Your task to perform on an android device: Open maps Image 0: 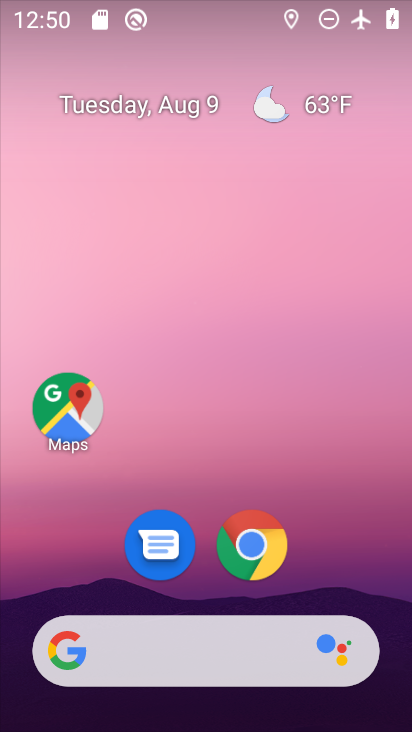
Step 0: click (68, 411)
Your task to perform on an android device: Open maps Image 1: 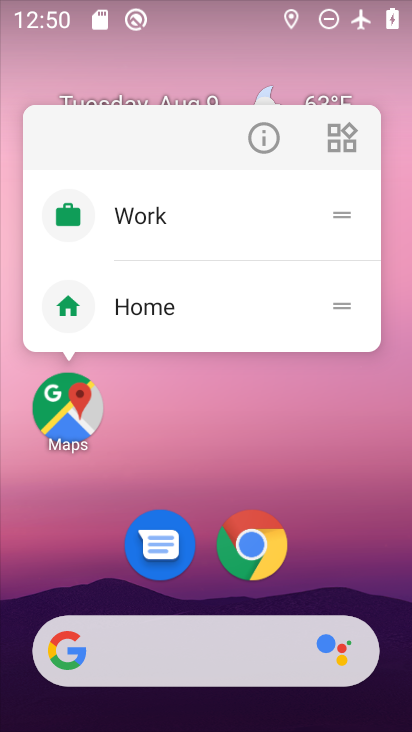
Step 1: click (68, 411)
Your task to perform on an android device: Open maps Image 2: 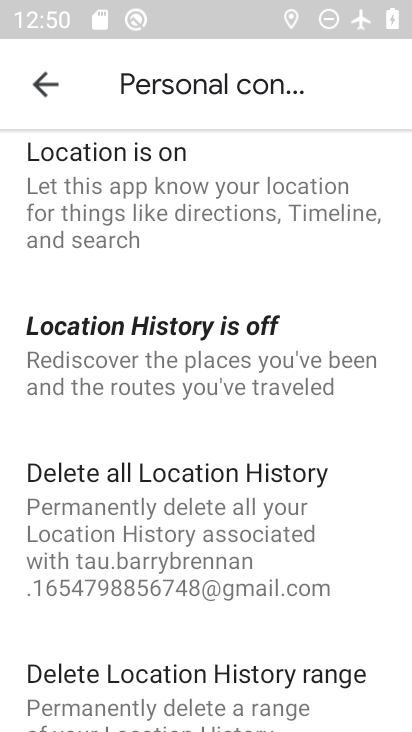
Step 2: task complete